Your task to perform on an android device: clear history in the chrome app Image 0: 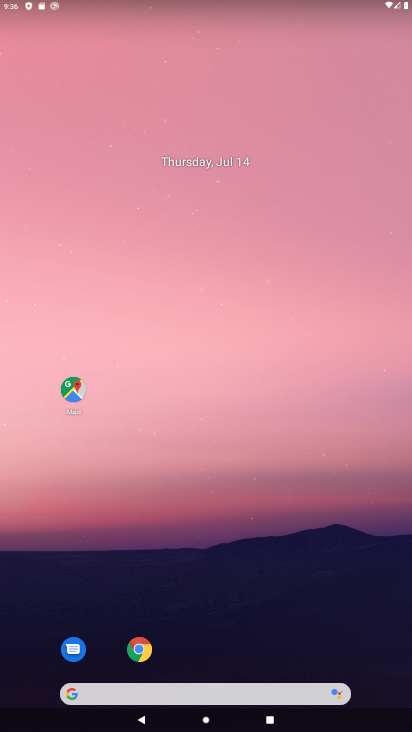
Step 0: click (149, 647)
Your task to perform on an android device: clear history in the chrome app Image 1: 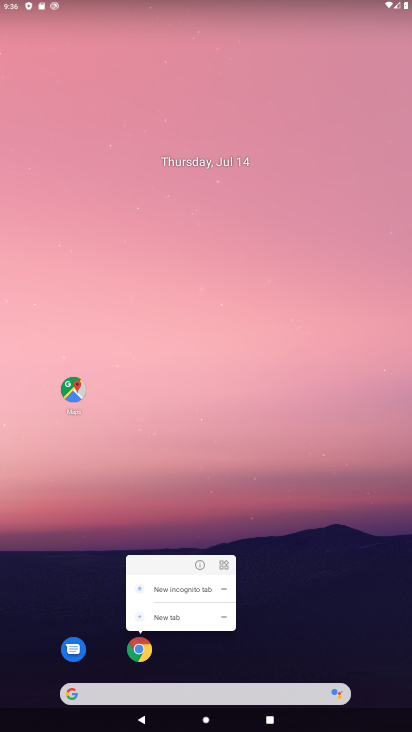
Step 1: click (149, 647)
Your task to perform on an android device: clear history in the chrome app Image 2: 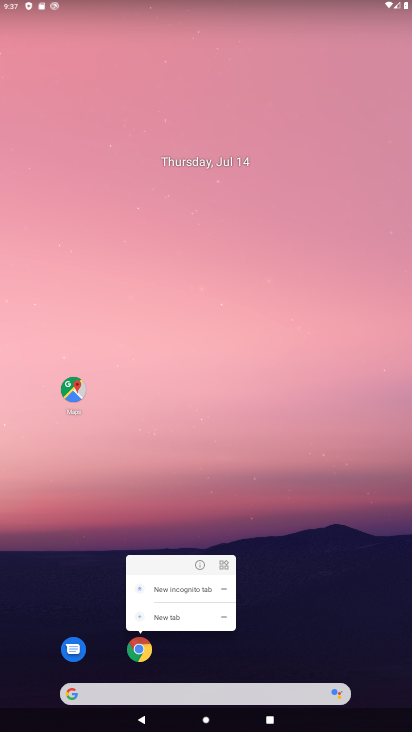
Step 2: click (152, 651)
Your task to perform on an android device: clear history in the chrome app Image 3: 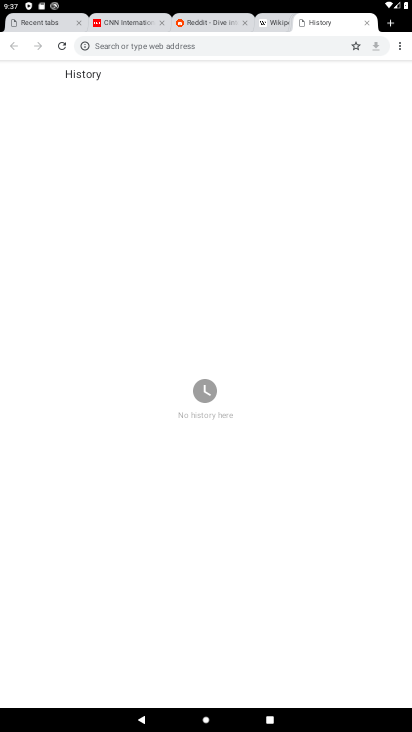
Step 3: click (396, 46)
Your task to perform on an android device: clear history in the chrome app Image 4: 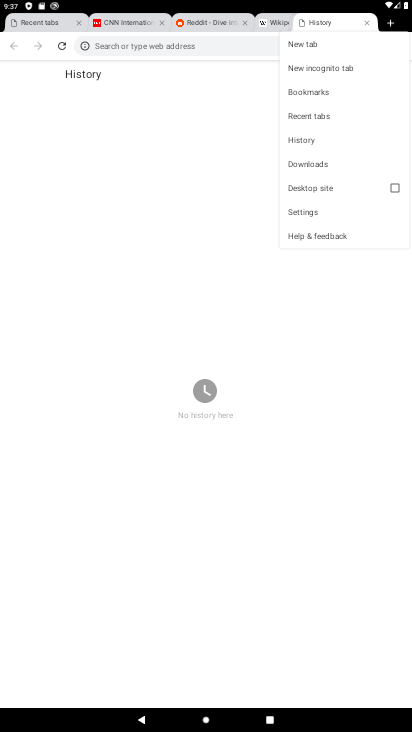
Step 4: click (296, 141)
Your task to perform on an android device: clear history in the chrome app Image 5: 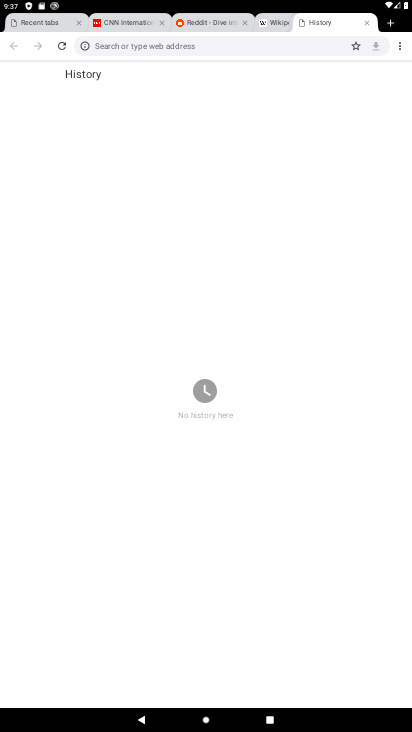
Step 5: task complete